Your task to perform on an android device: allow cookies in the chrome app Image 0: 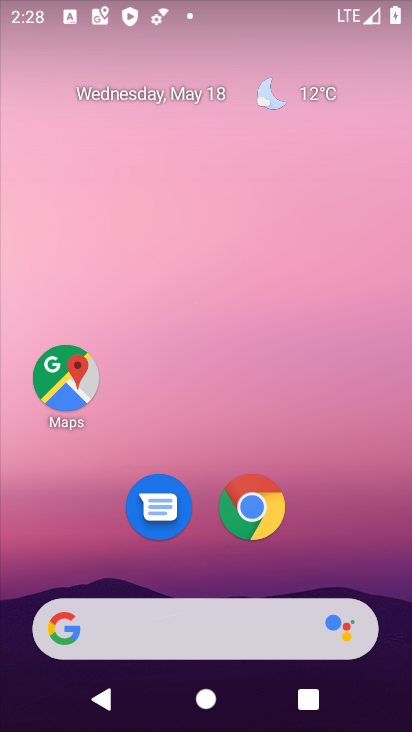
Step 0: click (254, 510)
Your task to perform on an android device: allow cookies in the chrome app Image 1: 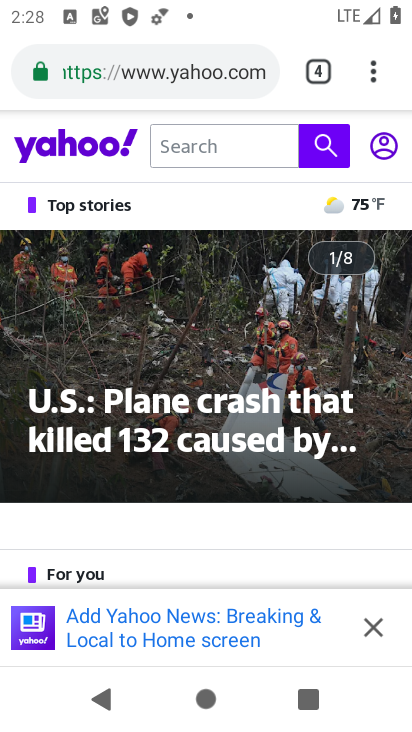
Step 1: click (370, 79)
Your task to perform on an android device: allow cookies in the chrome app Image 2: 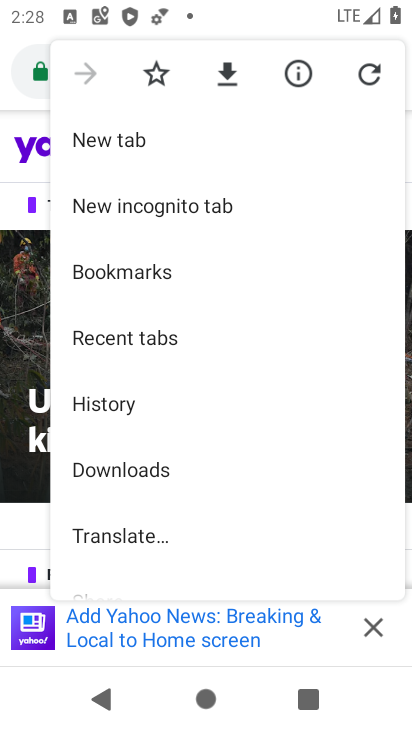
Step 2: drag from (242, 432) to (245, 92)
Your task to perform on an android device: allow cookies in the chrome app Image 3: 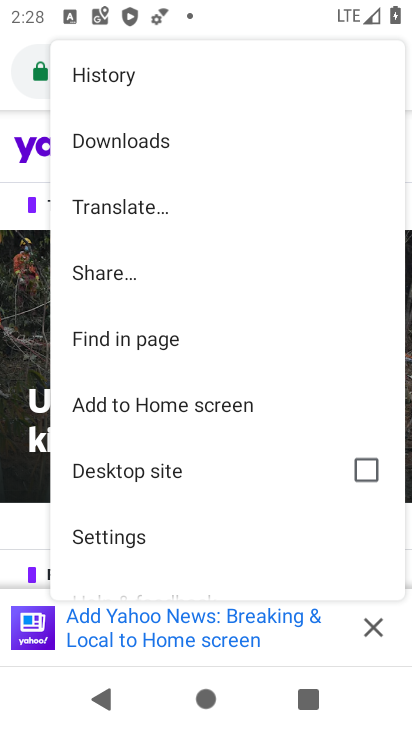
Step 3: click (117, 539)
Your task to perform on an android device: allow cookies in the chrome app Image 4: 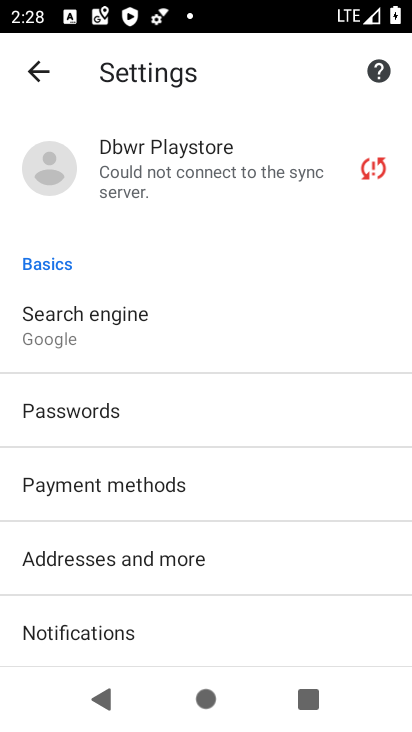
Step 4: drag from (280, 656) to (221, 224)
Your task to perform on an android device: allow cookies in the chrome app Image 5: 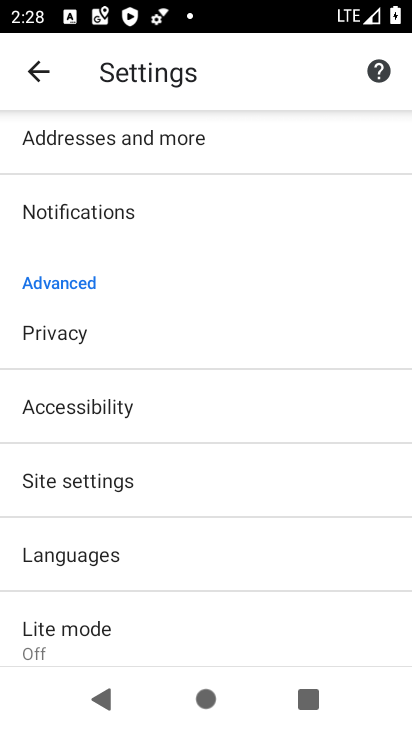
Step 5: click (89, 464)
Your task to perform on an android device: allow cookies in the chrome app Image 6: 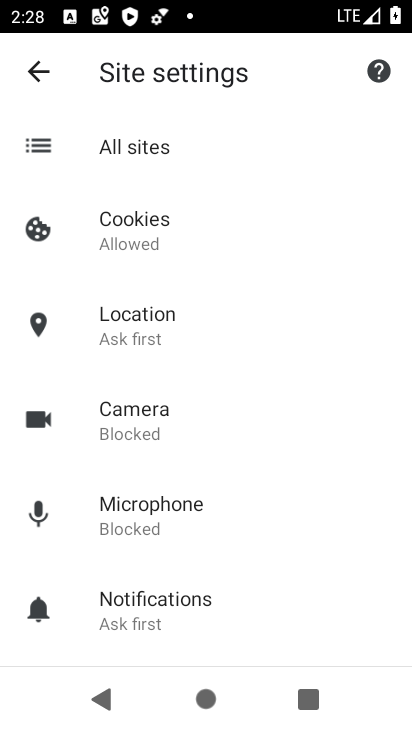
Step 6: click (150, 231)
Your task to perform on an android device: allow cookies in the chrome app Image 7: 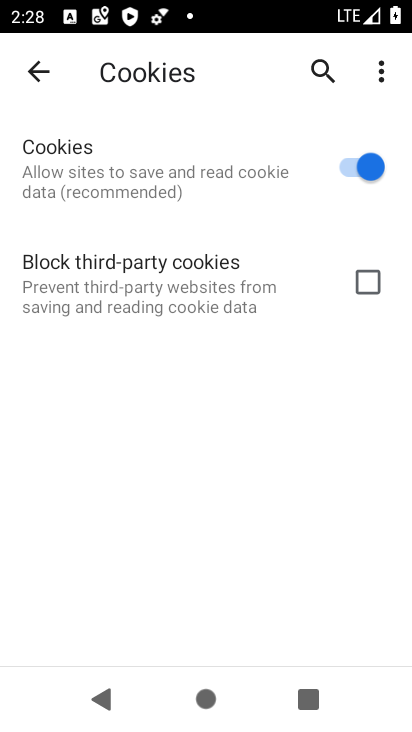
Step 7: task complete